Your task to perform on an android device: see tabs open on other devices in the chrome app Image 0: 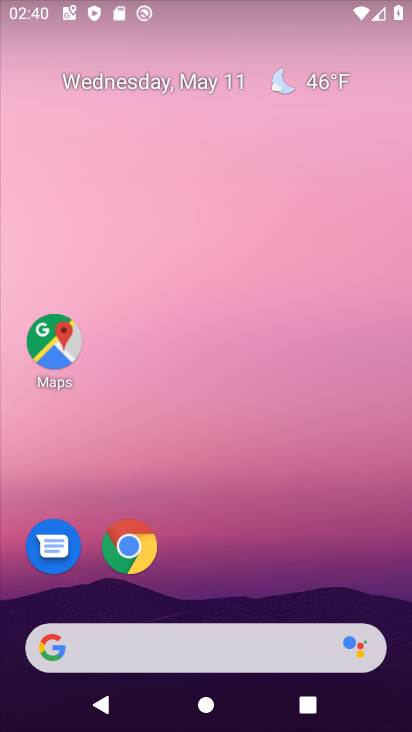
Step 0: drag from (203, 567) to (266, 73)
Your task to perform on an android device: see tabs open on other devices in the chrome app Image 1: 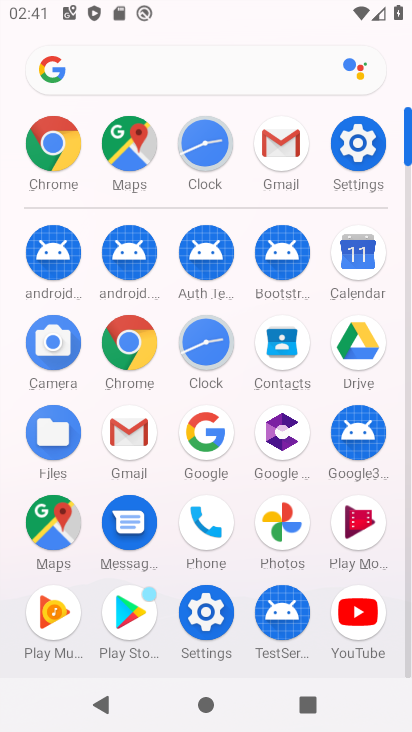
Step 1: click (129, 341)
Your task to perform on an android device: see tabs open on other devices in the chrome app Image 2: 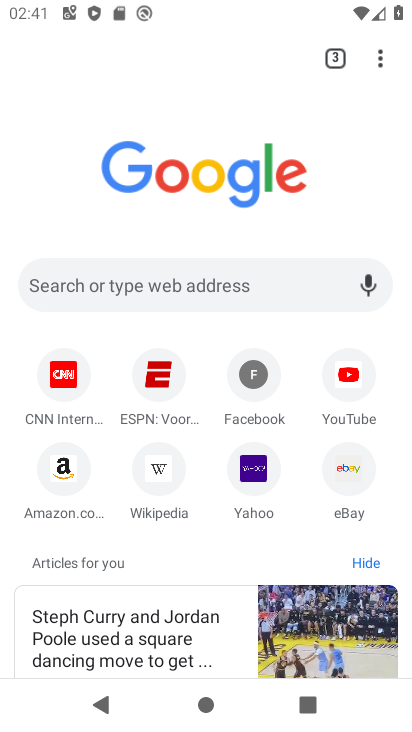
Step 2: drag from (374, 59) to (216, 273)
Your task to perform on an android device: see tabs open on other devices in the chrome app Image 3: 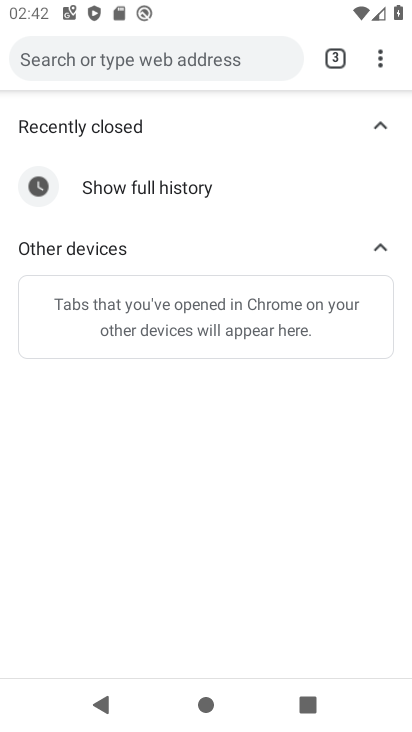
Step 3: drag from (289, 527) to (362, 303)
Your task to perform on an android device: see tabs open on other devices in the chrome app Image 4: 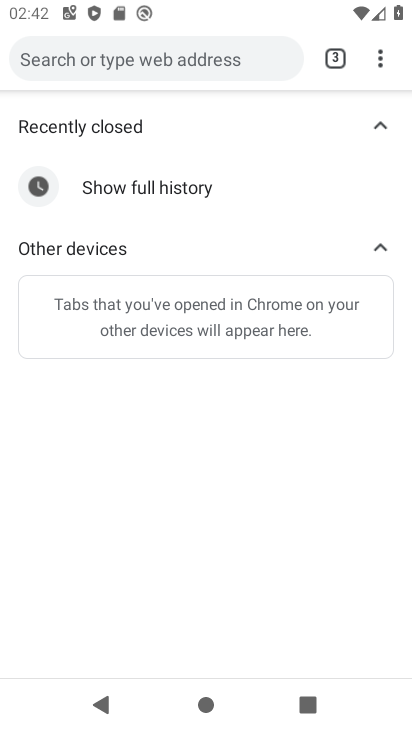
Step 4: click (385, 250)
Your task to perform on an android device: see tabs open on other devices in the chrome app Image 5: 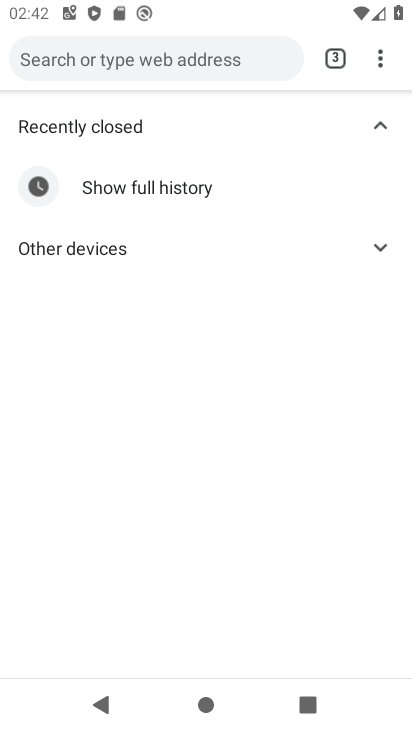
Step 5: task complete